Your task to perform on an android device: Go to wifi settings Image 0: 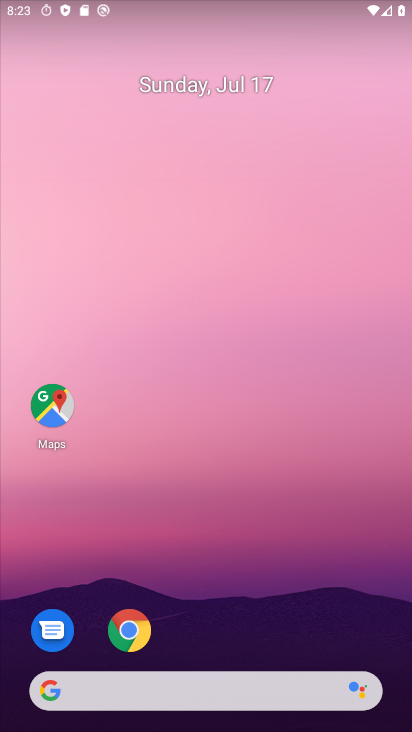
Step 0: drag from (33, 702) to (318, 26)
Your task to perform on an android device: Go to wifi settings Image 1: 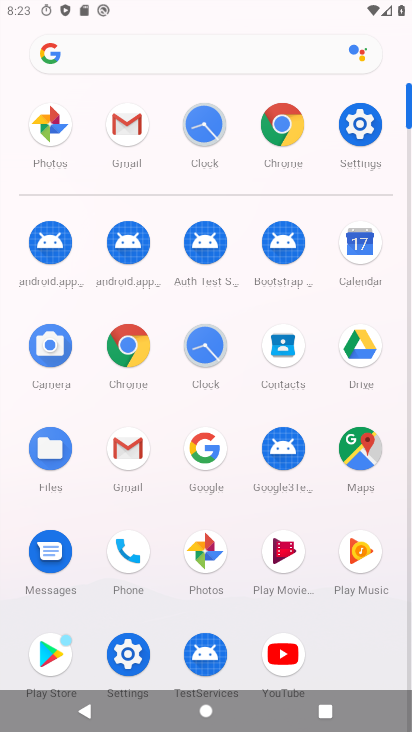
Step 1: click (123, 671)
Your task to perform on an android device: Go to wifi settings Image 2: 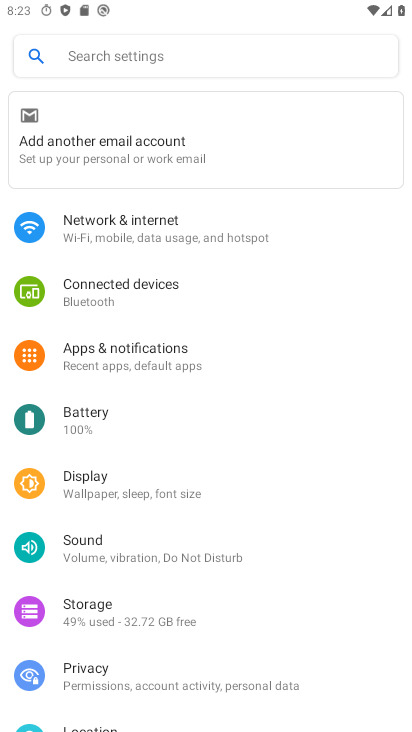
Step 2: click (128, 235)
Your task to perform on an android device: Go to wifi settings Image 3: 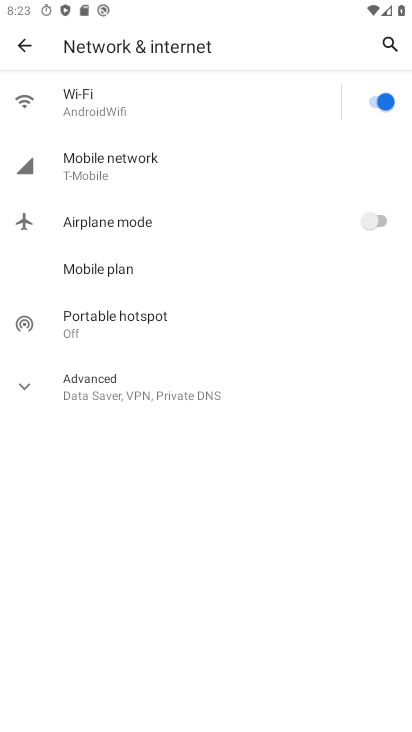
Step 3: task complete